Your task to perform on an android device: Go to Google maps Image 0: 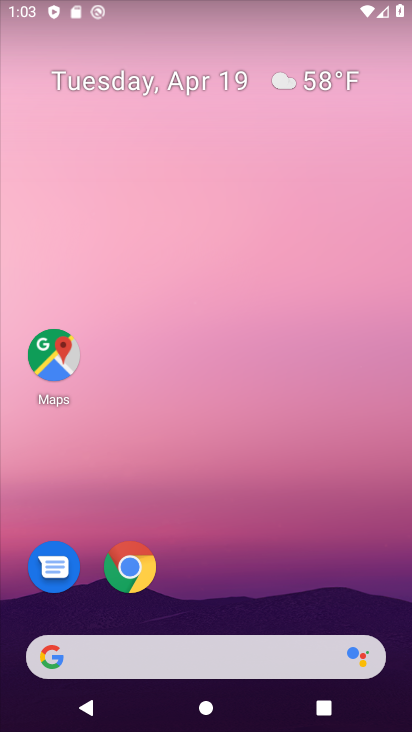
Step 0: click (52, 353)
Your task to perform on an android device: Go to Google maps Image 1: 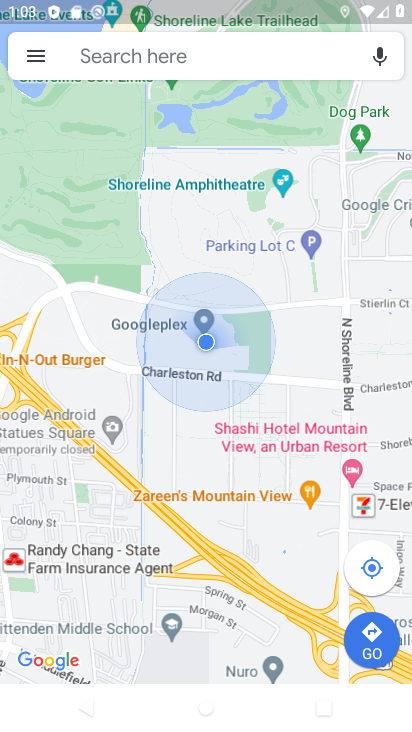
Step 1: task complete